Your task to perform on an android device: View the shopping cart on walmart. Search for duracell triple a on walmart, select the first entry, and add it to the cart. Image 0: 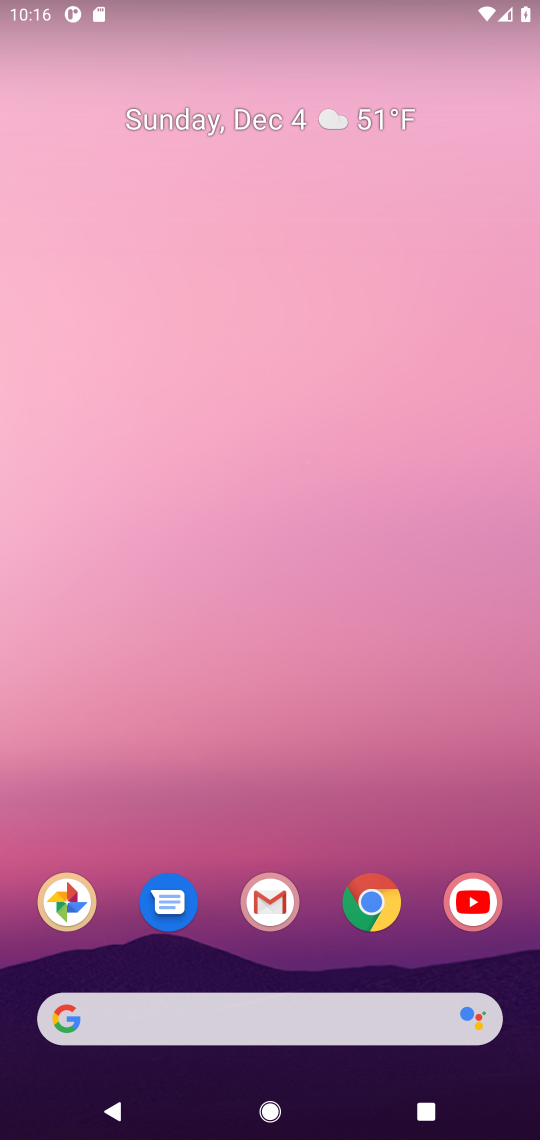
Step 0: click (366, 912)
Your task to perform on an android device: View the shopping cart on walmart. Search for duracell triple a on walmart, select the first entry, and add it to the cart. Image 1: 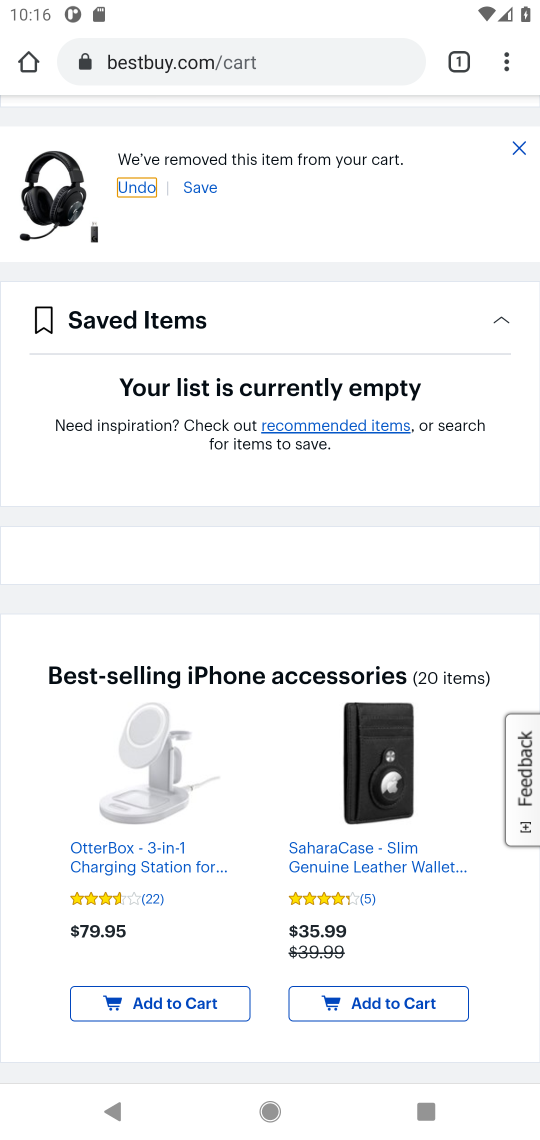
Step 1: click (200, 72)
Your task to perform on an android device: View the shopping cart on walmart. Search for duracell triple a on walmart, select the first entry, and add it to the cart. Image 2: 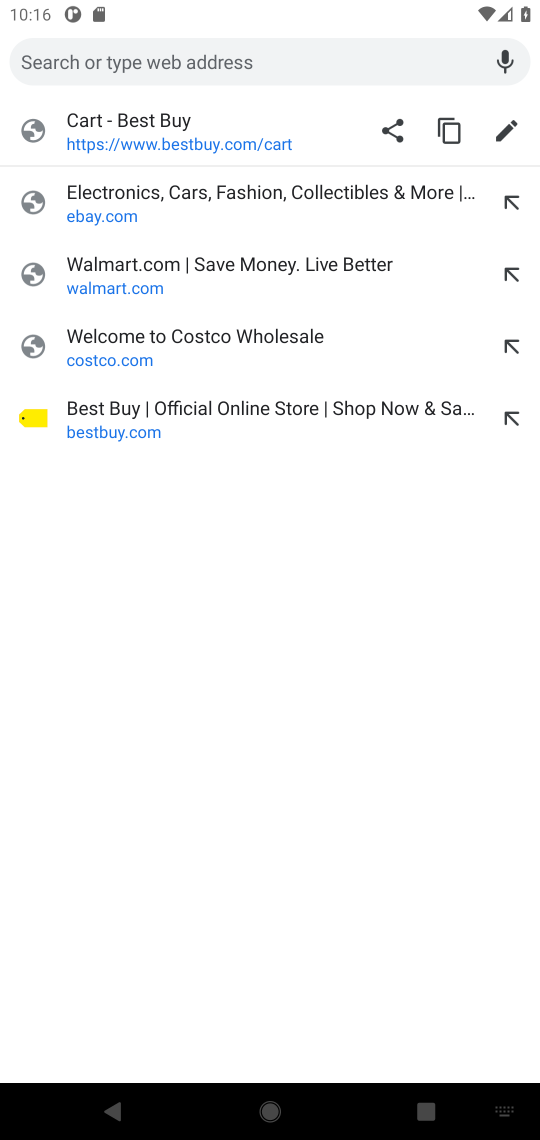
Step 2: click (155, 270)
Your task to perform on an android device: View the shopping cart on walmart. Search for duracell triple a on walmart, select the first entry, and add it to the cart. Image 3: 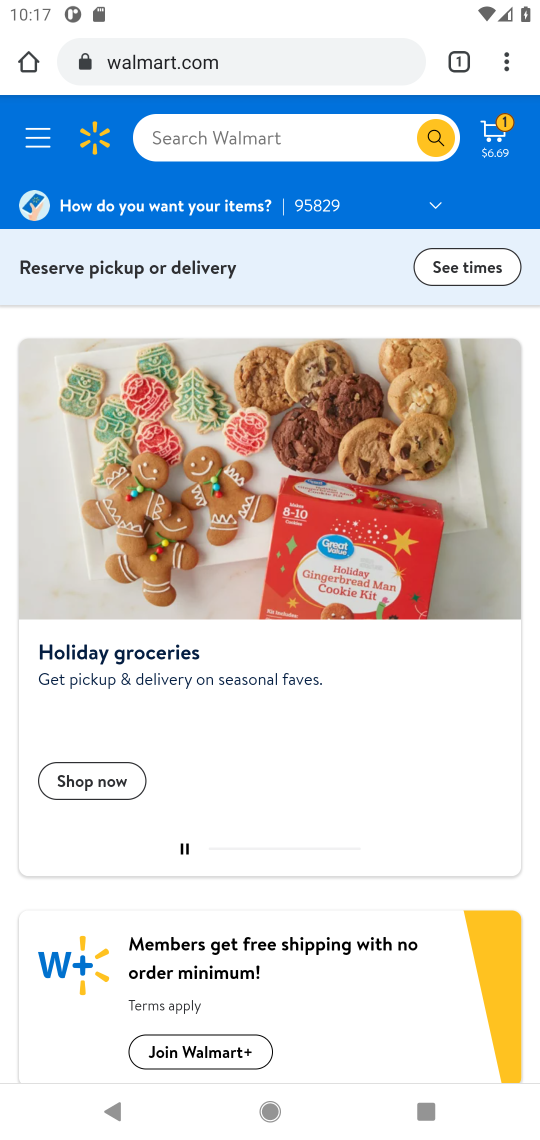
Step 3: click (509, 128)
Your task to perform on an android device: View the shopping cart on walmart. Search for duracell triple a on walmart, select the first entry, and add it to the cart. Image 4: 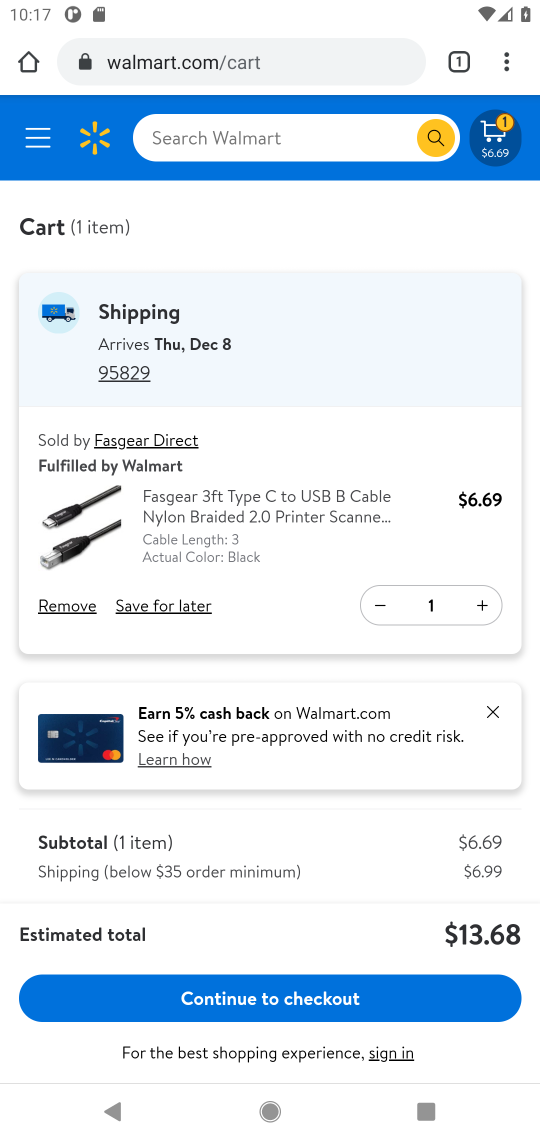
Step 4: click (509, 128)
Your task to perform on an android device: View the shopping cart on walmart. Search for duracell triple a on walmart, select the first entry, and add it to the cart. Image 5: 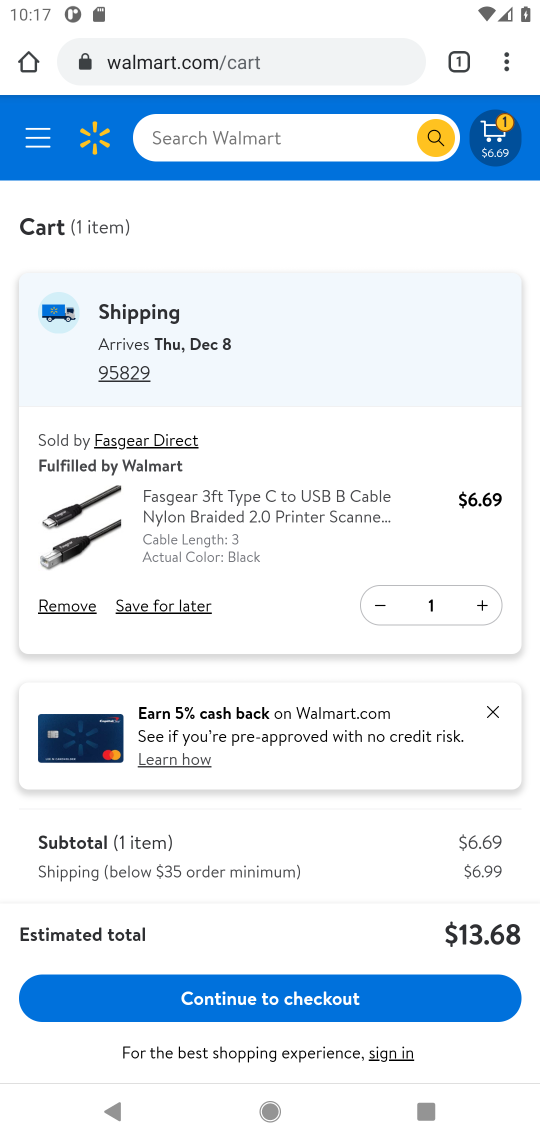
Step 5: click (268, 149)
Your task to perform on an android device: View the shopping cart on walmart. Search for duracell triple a on walmart, select the first entry, and add it to the cart. Image 6: 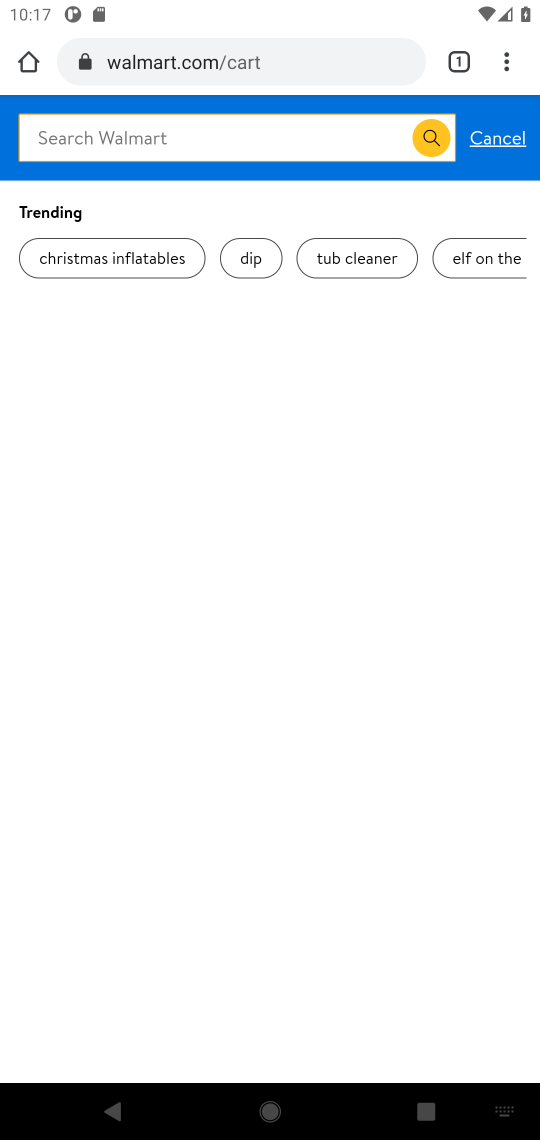
Step 6: type "duracell triple a"
Your task to perform on an android device: View the shopping cart on walmart. Search for duracell triple a on walmart, select the first entry, and add it to the cart. Image 7: 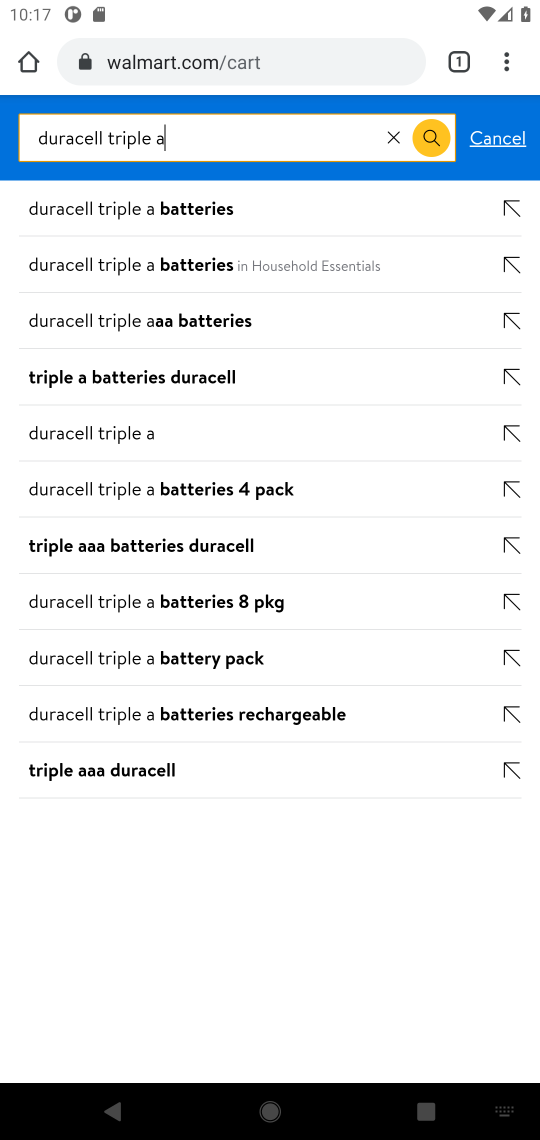
Step 7: click (166, 423)
Your task to perform on an android device: View the shopping cart on walmart. Search for duracell triple a on walmart, select the first entry, and add it to the cart. Image 8: 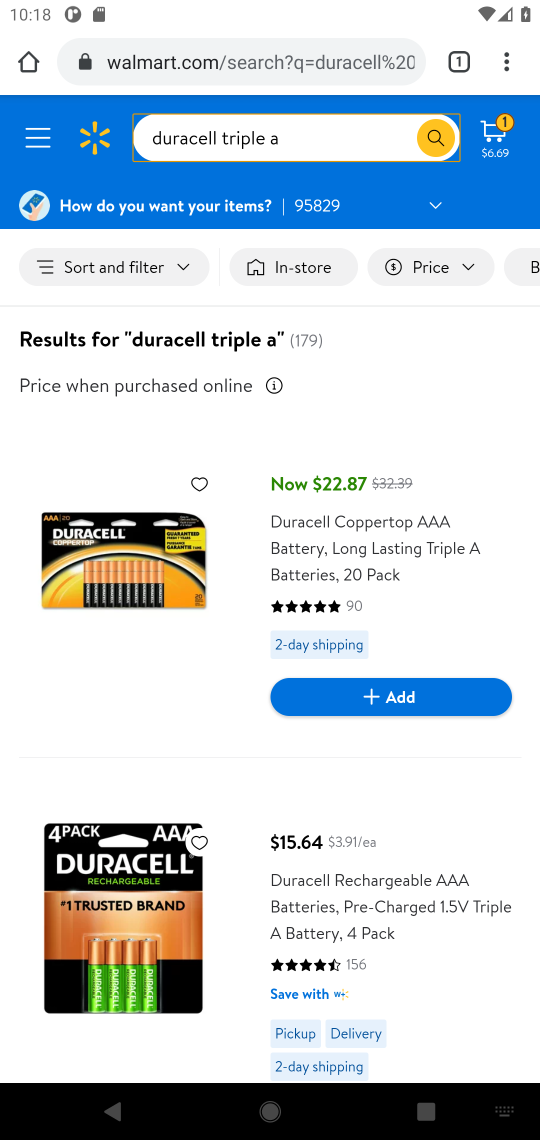
Step 8: click (355, 711)
Your task to perform on an android device: View the shopping cart on walmart. Search for duracell triple a on walmart, select the first entry, and add it to the cart. Image 9: 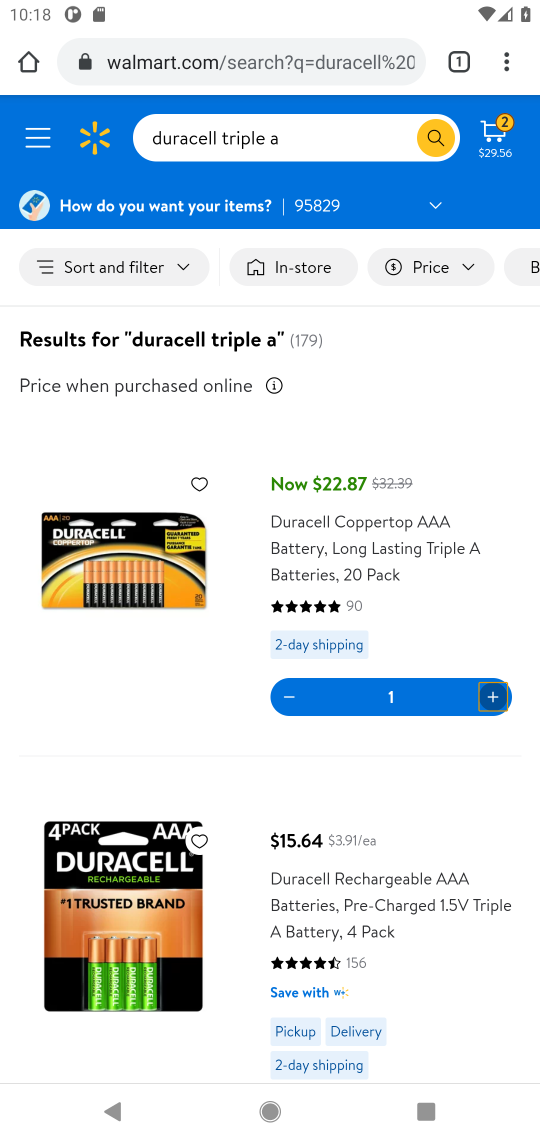
Step 9: task complete